Your task to perform on an android device: Open Youtube and go to the subscriptions tab Image 0: 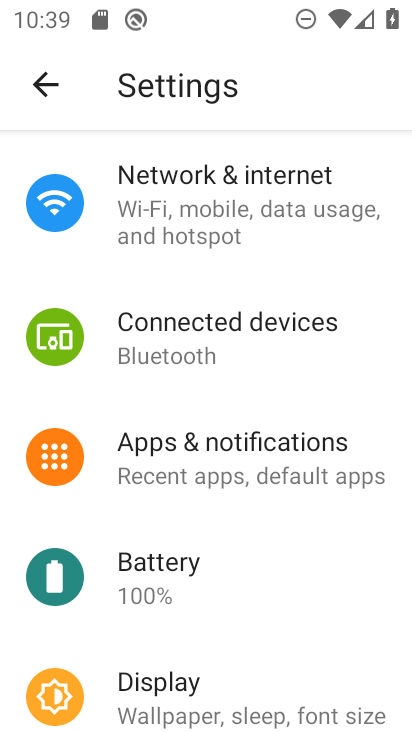
Step 0: press home button
Your task to perform on an android device: Open Youtube and go to the subscriptions tab Image 1: 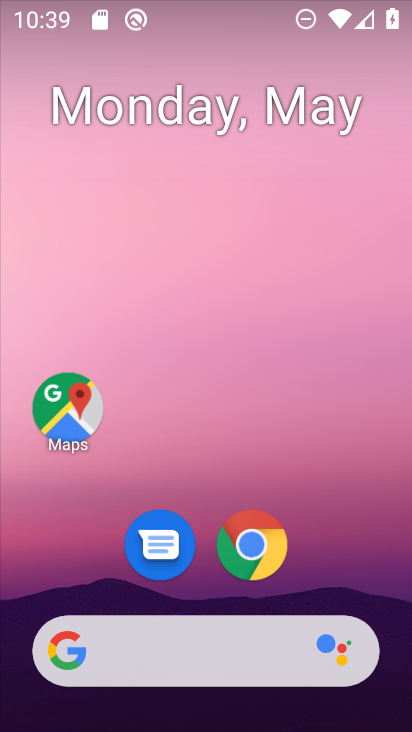
Step 1: drag from (334, 566) to (183, 28)
Your task to perform on an android device: Open Youtube and go to the subscriptions tab Image 2: 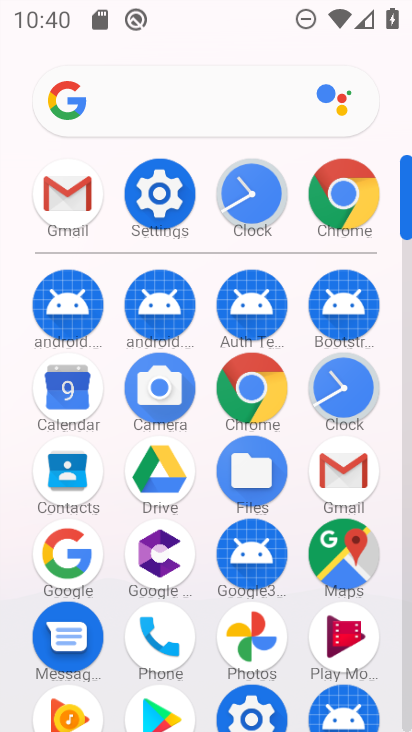
Step 2: click (407, 585)
Your task to perform on an android device: Open Youtube and go to the subscriptions tab Image 3: 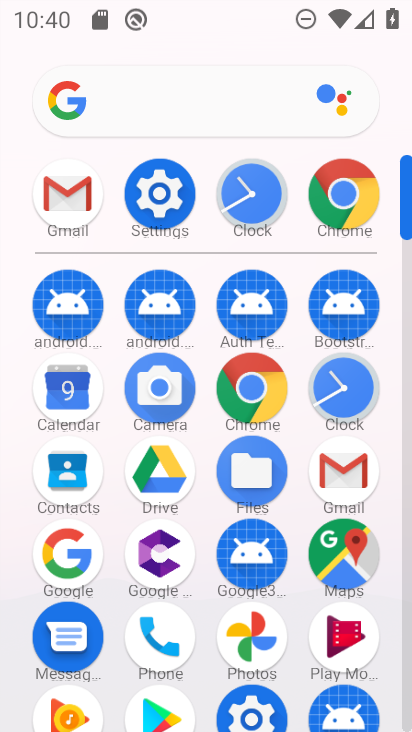
Step 3: click (407, 585)
Your task to perform on an android device: Open Youtube and go to the subscriptions tab Image 4: 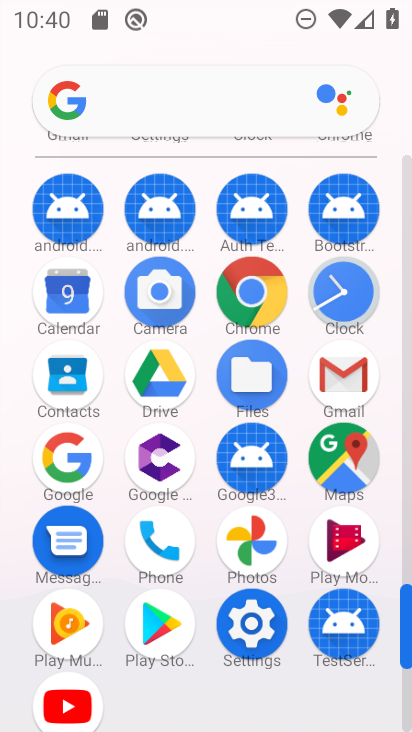
Step 4: click (62, 701)
Your task to perform on an android device: Open Youtube and go to the subscriptions tab Image 5: 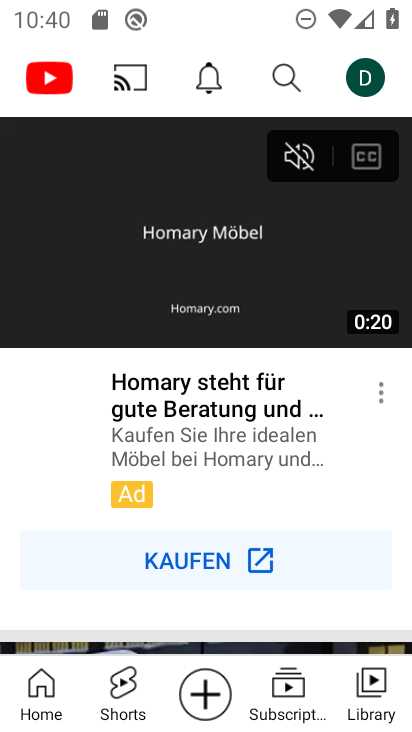
Step 5: click (275, 683)
Your task to perform on an android device: Open Youtube and go to the subscriptions tab Image 6: 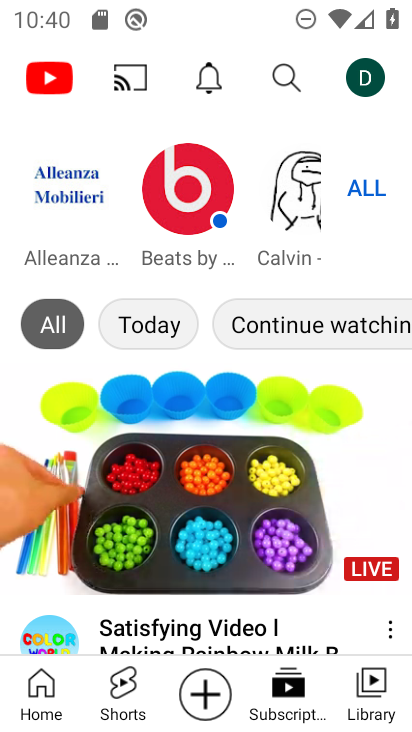
Step 6: task complete